Your task to perform on an android device: check google app version Image 0: 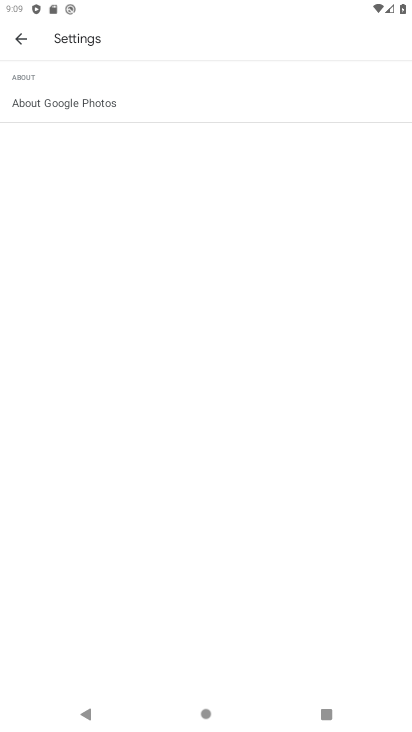
Step 0: press home button
Your task to perform on an android device: check google app version Image 1: 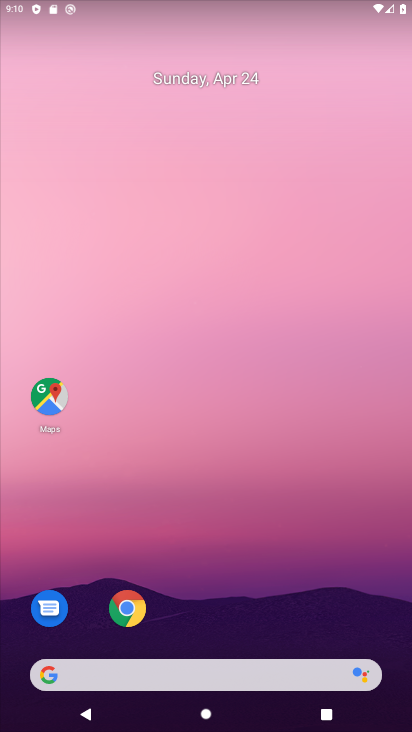
Step 1: drag from (247, 606) to (228, 135)
Your task to perform on an android device: check google app version Image 2: 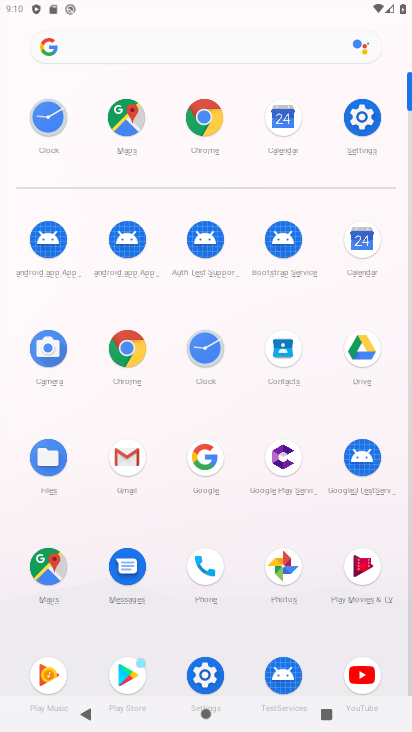
Step 2: click (217, 117)
Your task to perform on an android device: check google app version Image 3: 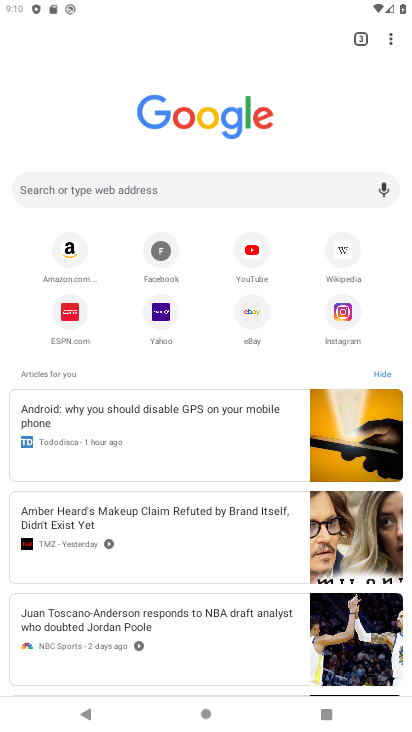
Step 3: click (391, 39)
Your task to perform on an android device: check google app version Image 4: 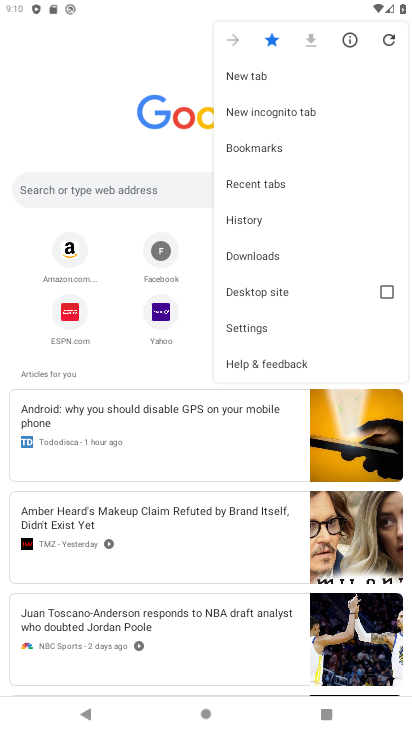
Step 4: click (265, 320)
Your task to perform on an android device: check google app version Image 5: 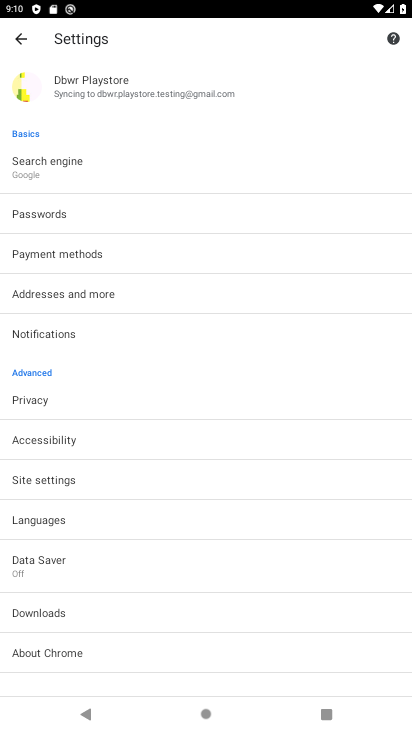
Step 5: drag from (99, 638) to (108, 566)
Your task to perform on an android device: check google app version Image 6: 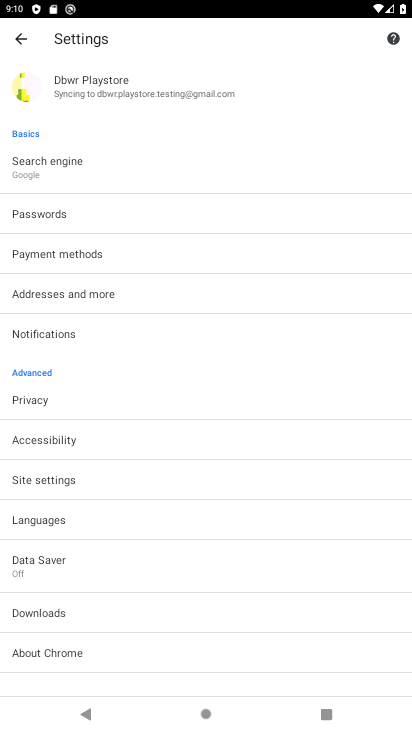
Step 6: click (57, 652)
Your task to perform on an android device: check google app version Image 7: 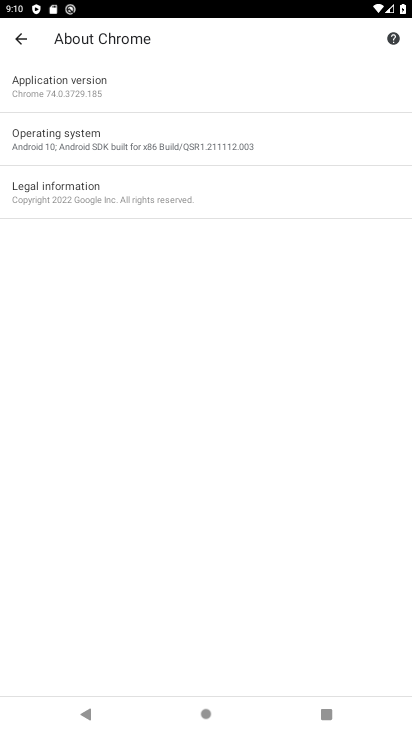
Step 7: click (108, 99)
Your task to perform on an android device: check google app version Image 8: 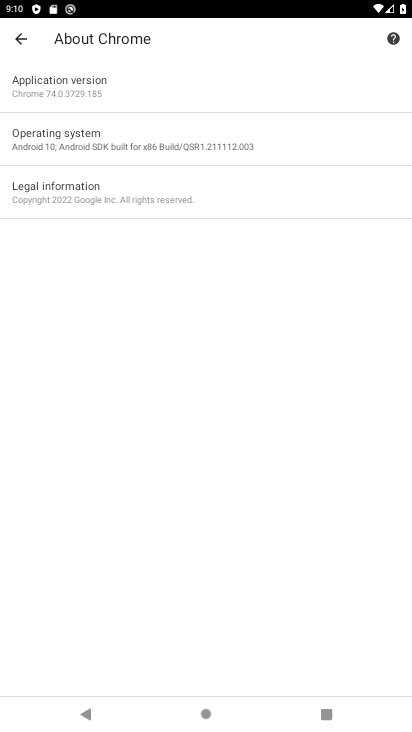
Step 8: task complete